Your task to perform on an android device: snooze an email in the gmail app Image 0: 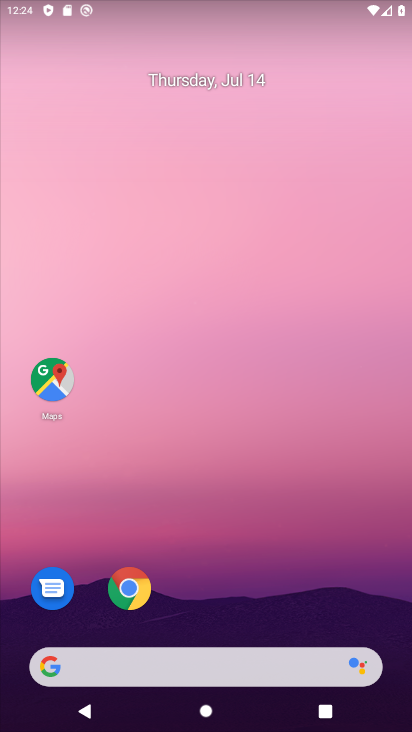
Step 0: drag from (269, 584) to (268, 34)
Your task to perform on an android device: snooze an email in the gmail app Image 1: 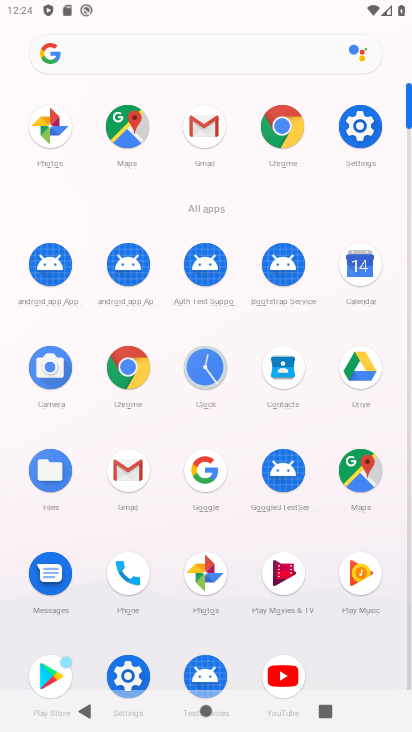
Step 1: click (201, 123)
Your task to perform on an android device: snooze an email in the gmail app Image 2: 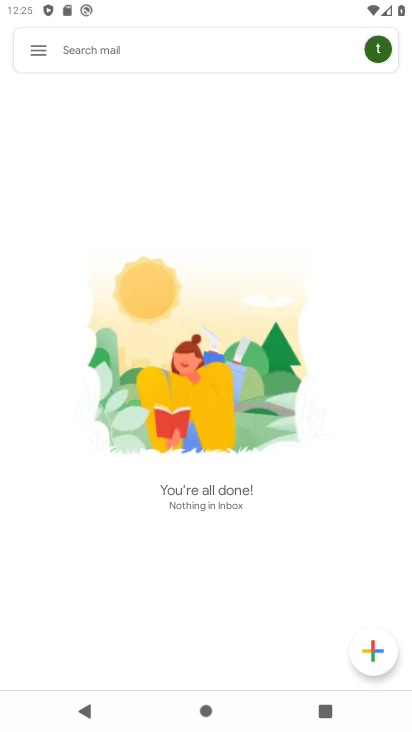
Step 2: click (30, 47)
Your task to perform on an android device: snooze an email in the gmail app Image 3: 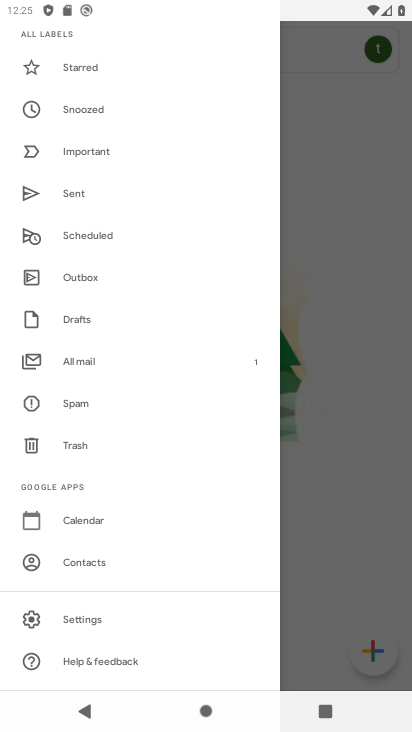
Step 3: click (114, 103)
Your task to perform on an android device: snooze an email in the gmail app Image 4: 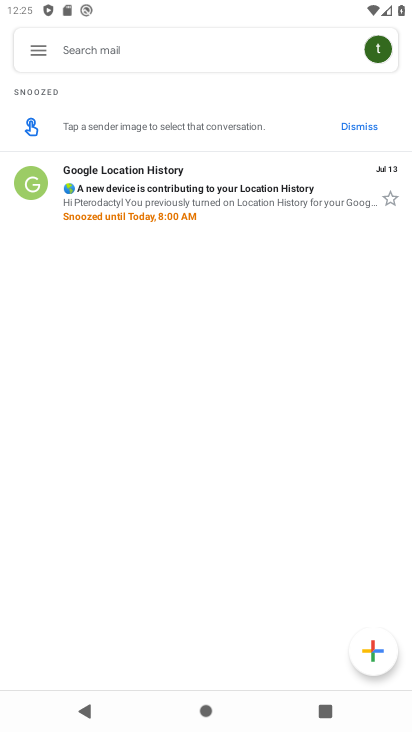
Step 4: click (24, 41)
Your task to perform on an android device: snooze an email in the gmail app Image 5: 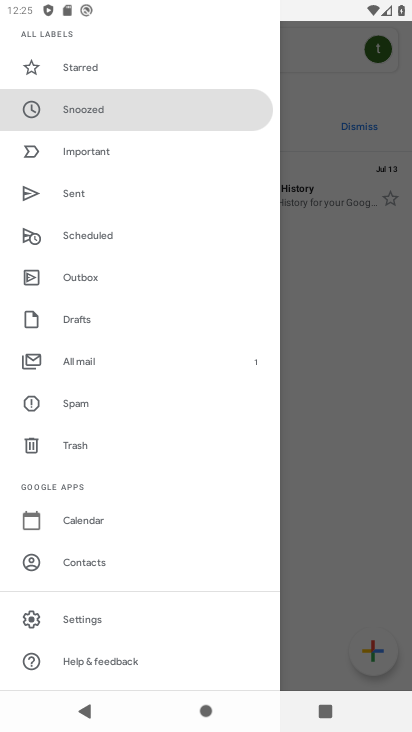
Step 5: task complete